Your task to perform on an android device: turn on the 24-hour format for clock Image 0: 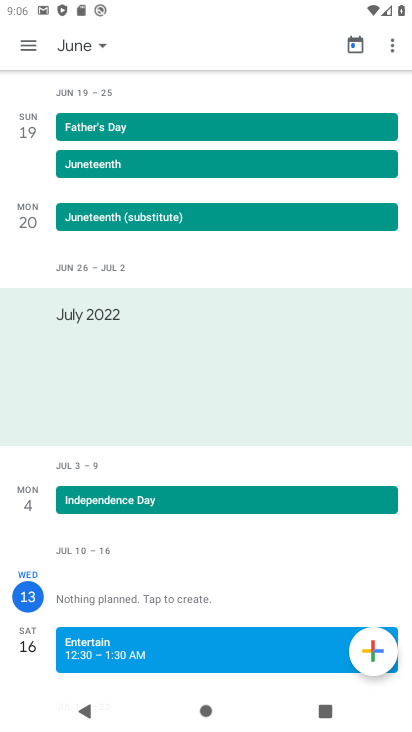
Step 0: press back button
Your task to perform on an android device: turn on the 24-hour format for clock Image 1: 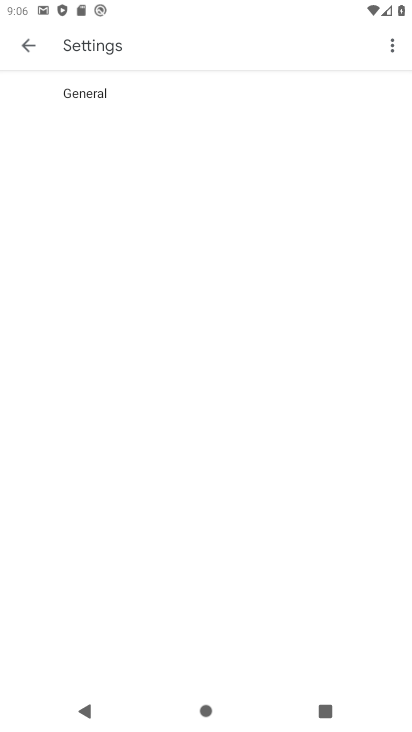
Step 1: press back button
Your task to perform on an android device: turn on the 24-hour format for clock Image 2: 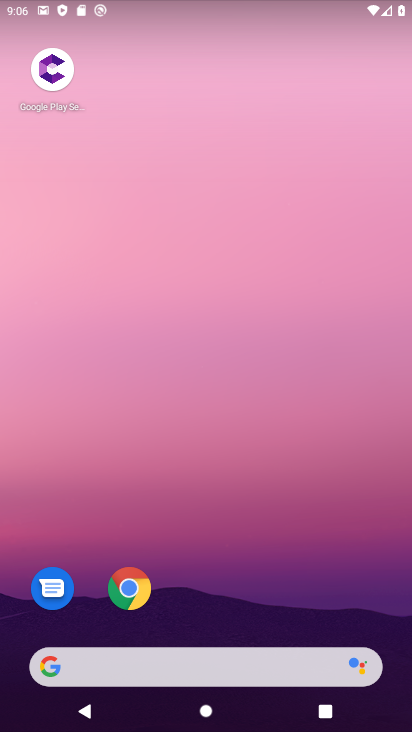
Step 2: drag from (218, 595) to (261, 18)
Your task to perform on an android device: turn on the 24-hour format for clock Image 3: 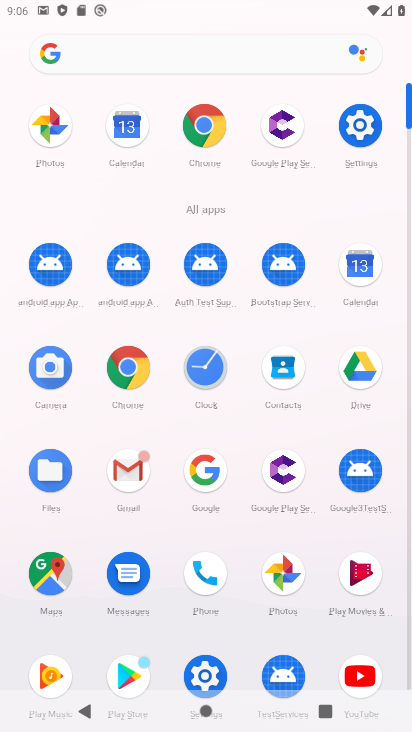
Step 3: click (201, 369)
Your task to perform on an android device: turn on the 24-hour format for clock Image 4: 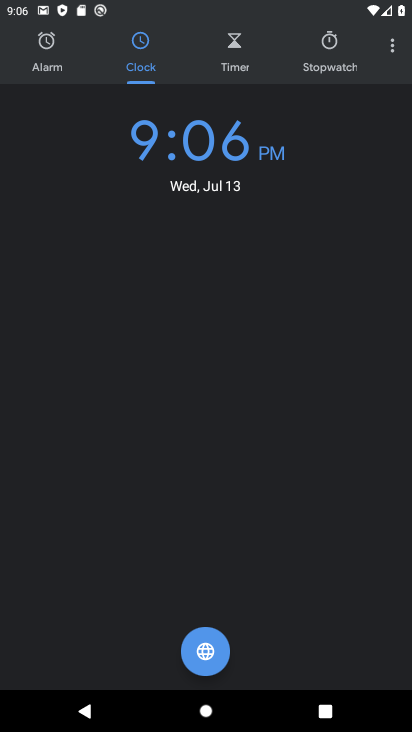
Step 4: click (389, 44)
Your task to perform on an android device: turn on the 24-hour format for clock Image 5: 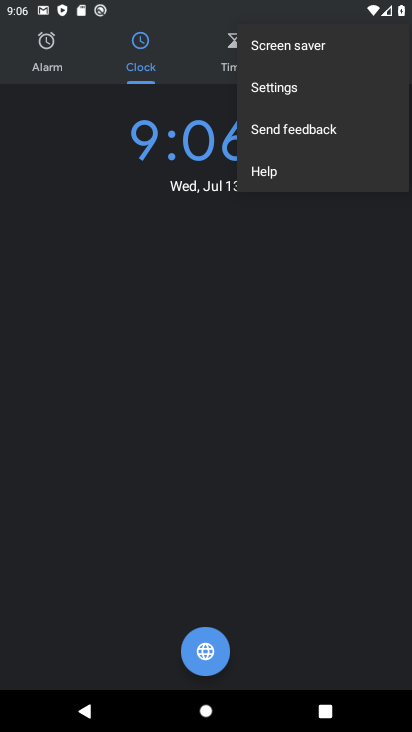
Step 5: click (281, 90)
Your task to perform on an android device: turn on the 24-hour format for clock Image 6: 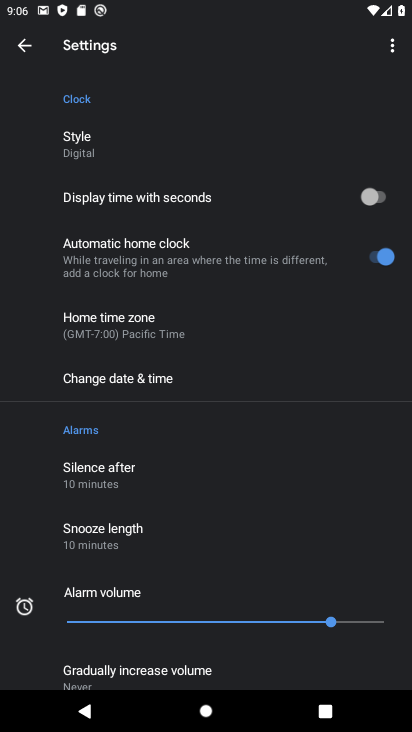
Step 6: click (155, 376)
Your task to perform on an android device: turn on the 24-hour format for clock Image 7: 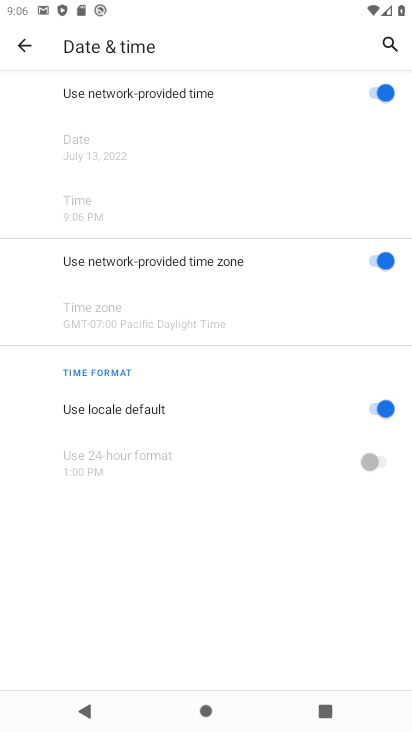
Step 7: click (392, 406)
Your task to perform on an android device: turn on the 24-hour format for clock Image 8: 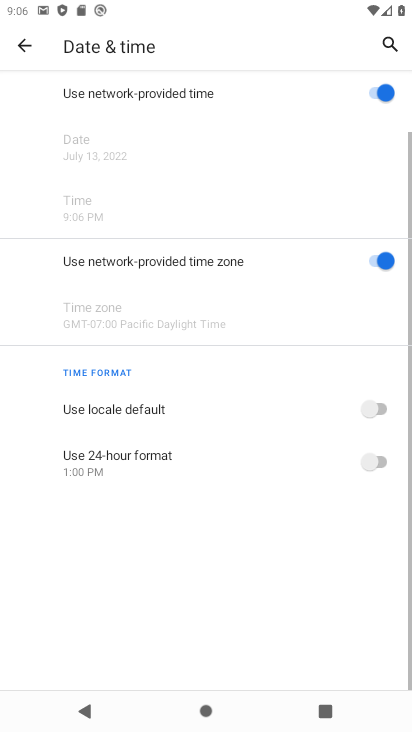
Step 8: click (371, 462)
Your task to perform on an android device: turn on the 24-hour format for clock Image 9: 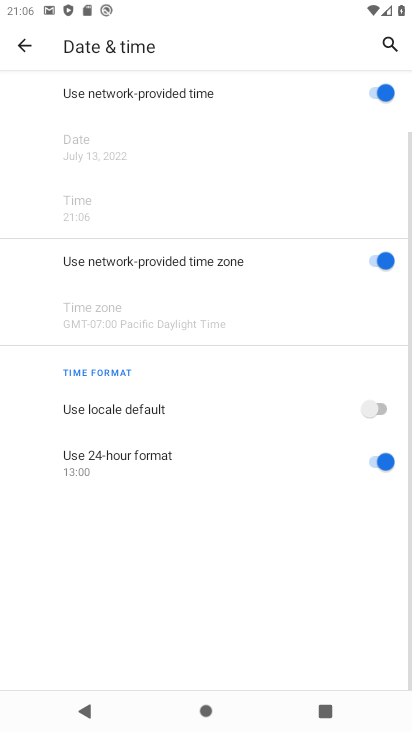
Step 9: task complete